Your task to perform on an android device: Go to eBay Image 0: 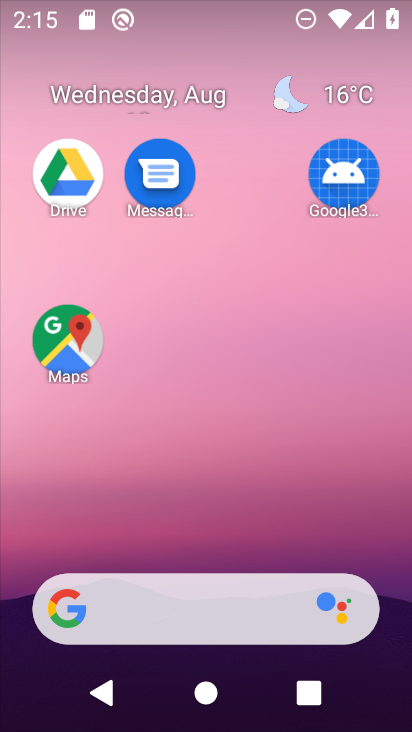
Step 0: drag from (195, 551) to (182, 118)
Your task to perform on an android device: Go to eBay Image 1: 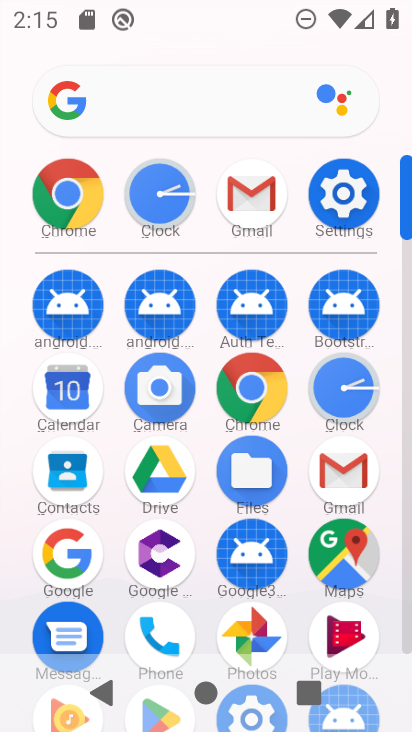
Step 1: click (91, 182)
Your task to perform on an android device: Go to eBay Image 2: 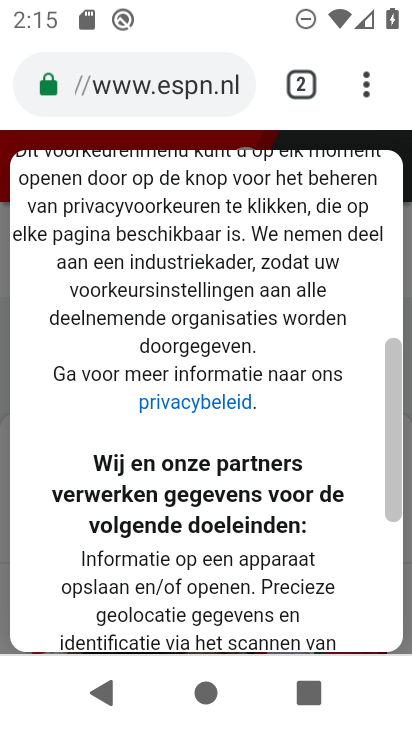
Step 2: click (302, 59)
Your task to perform on an android device: Go to eBay Image 3: 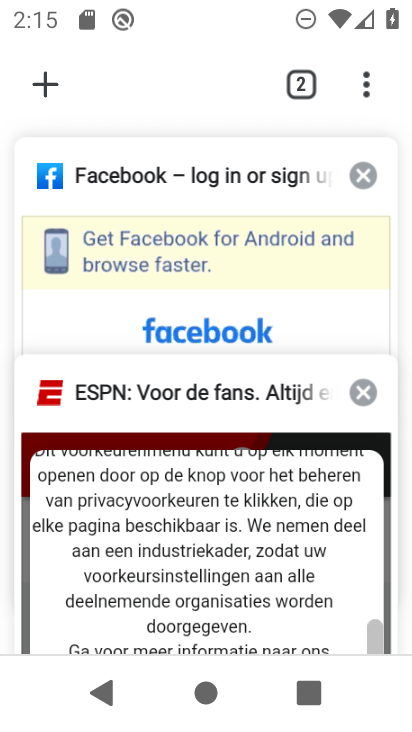
Step 3: click (45, 77)
Your task to perform on an android device: Go to eBay Image 4: 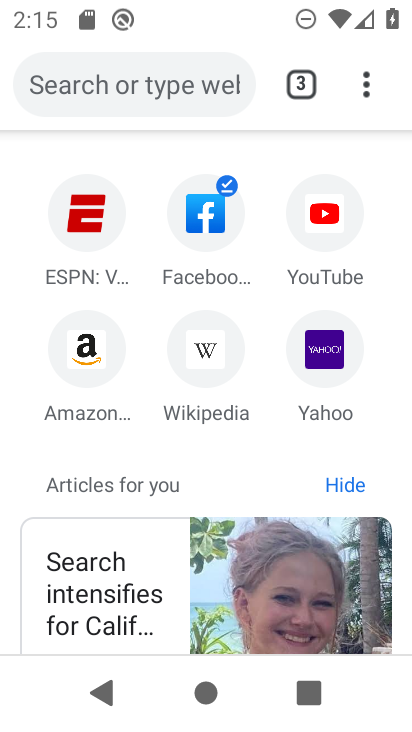
Step 4: click (185, 71)
Your task to perform on an android device: Go to eBay Image 5: 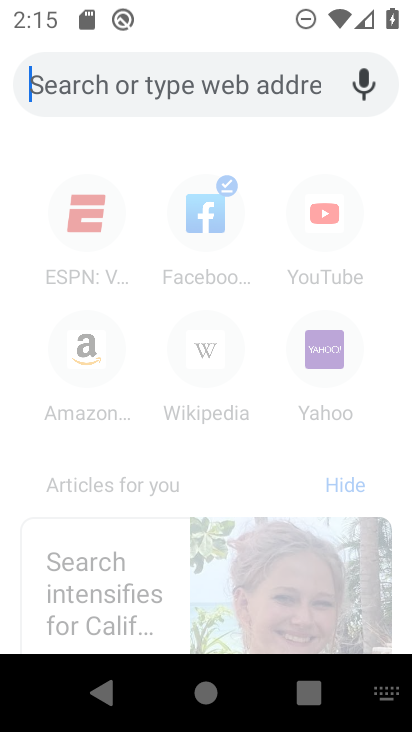
Step 5: type "ebay"
Your task to perform on an android device: Go to eBay Image 6: 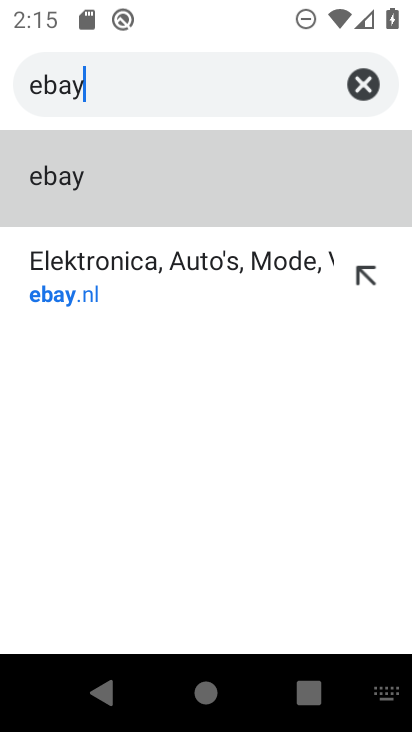
Step 6: click (136, 272)
Your task to perform on an android device: Go to eBay Image 7: 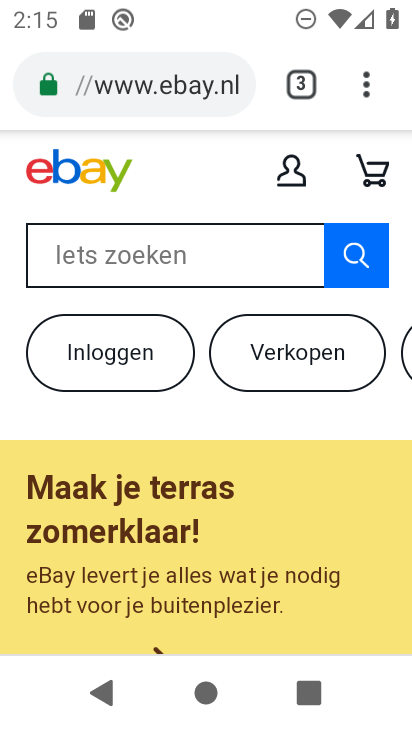
Step 7: task complete